Your task to perform on an android device: Open Chrome and go to the settings page Image 0: 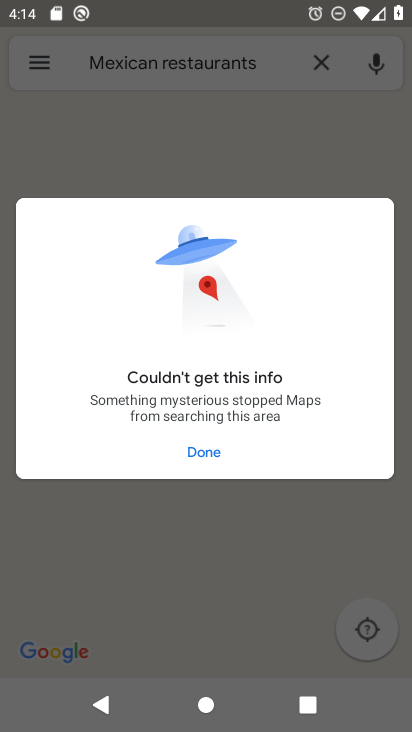
Step 0: press home button
Your task to perform on an android device: Open Chrome and go to the settings page Image 1: 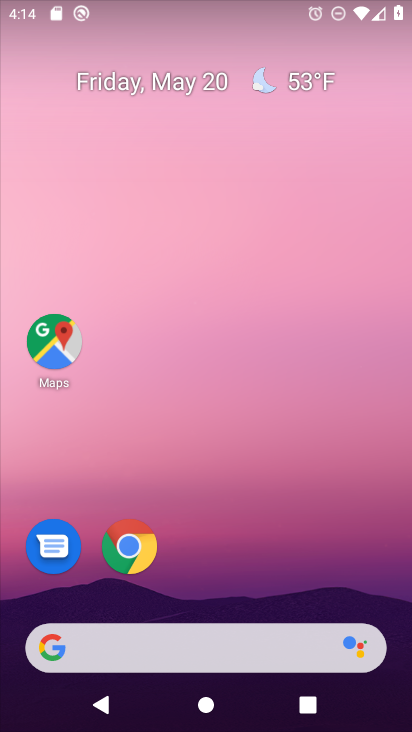
Step 1: click (152, 542)
Your task to perform on an android device: Open Chrome and go to the settings page Image 2: 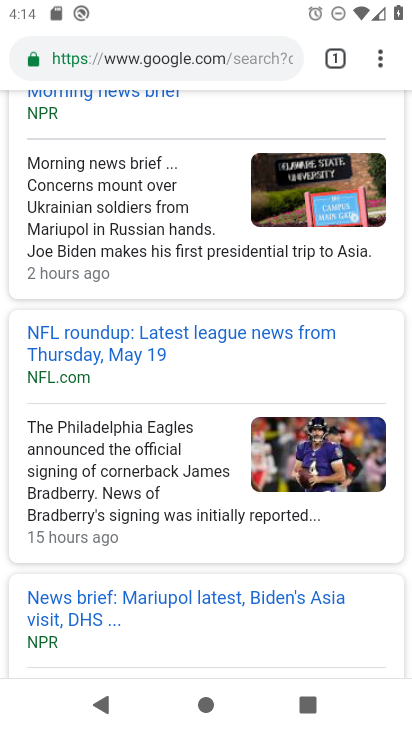
Step 2: task complete